Your task to perform on an android device: check out phone information Image 0: 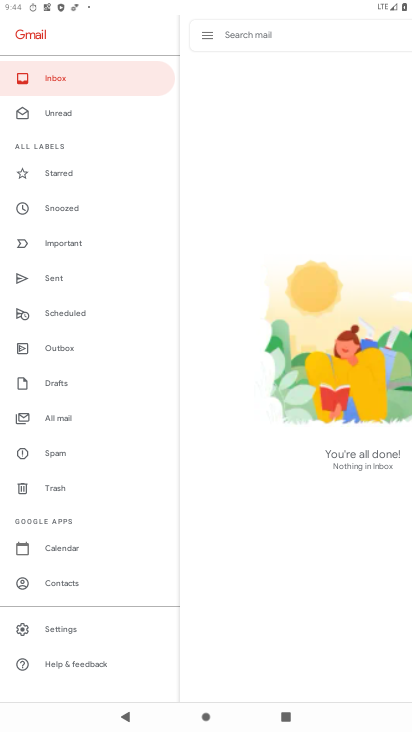
Step 0: press home button
Your task to perform on an android device: check out phone information Image 1: 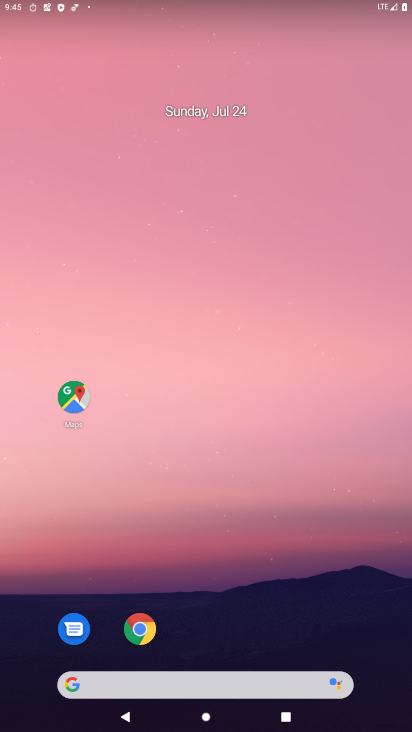
Step 1: drag from (279, 640) to (206, 43)
Your task to perform on an android device: check out phone information Image 2: 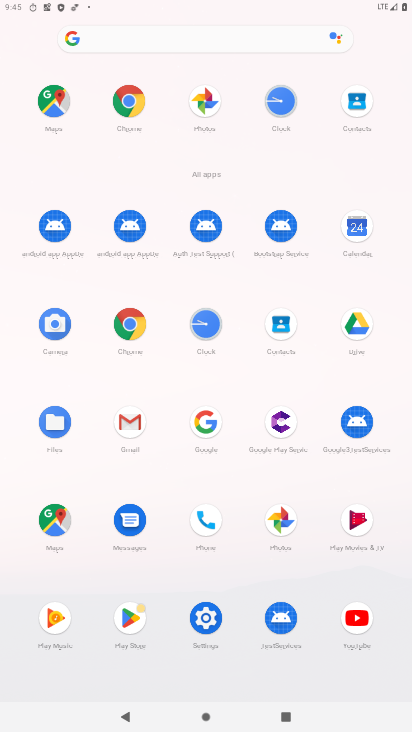
Step 2: click (209, 619)
Your task to perform on an android device: check out phone information Image 3: 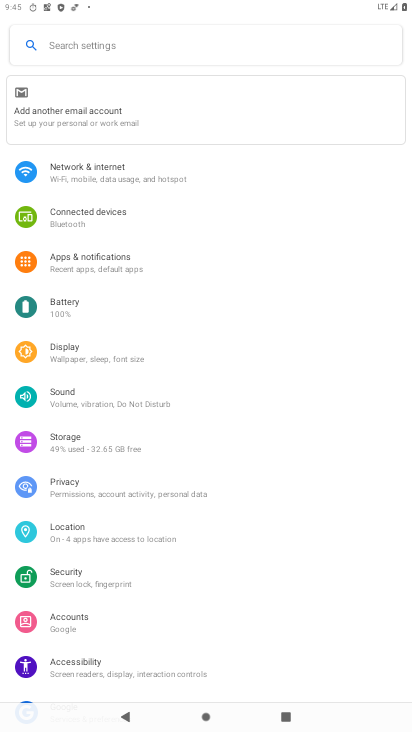
Step 3: drag from (113, 631) to (139, 210)
Your task to perform on an android device: check out phone information Image 4: 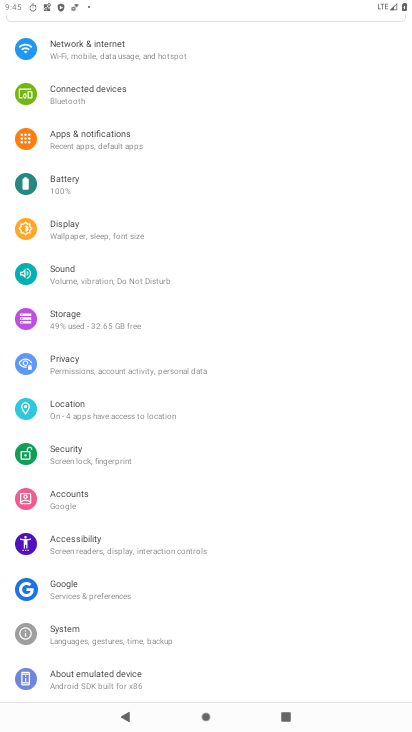
Step 4: click (79, 684)
Your task to perform on an android device: check out phone information Image 5: 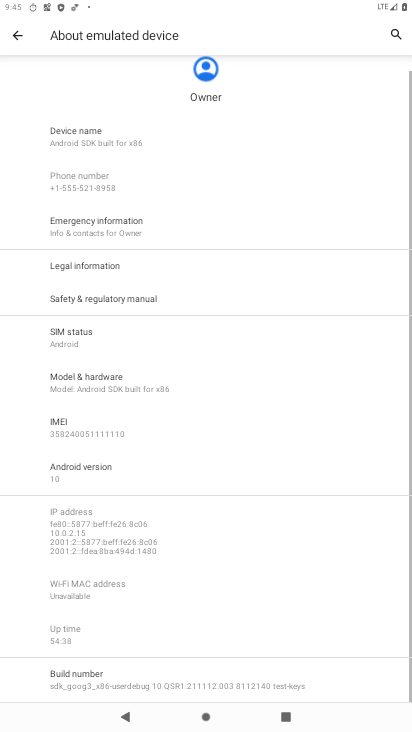
Step 5: task complete